Your task to perform on an android device: turn notification dots on Image 0: 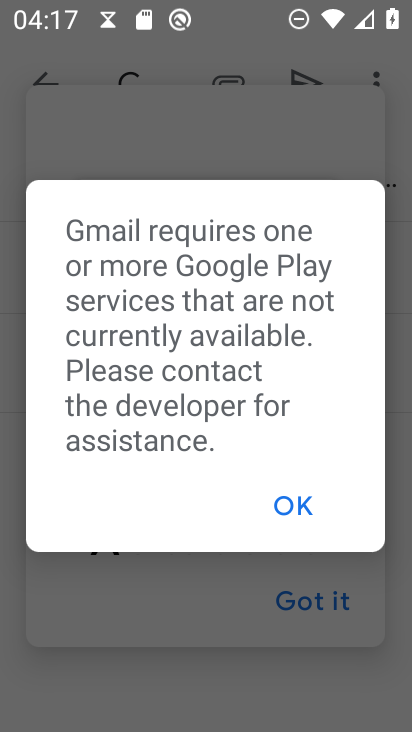
Step 0: press home button
Your task to perform on an android device: turn notification dots on Image 1: 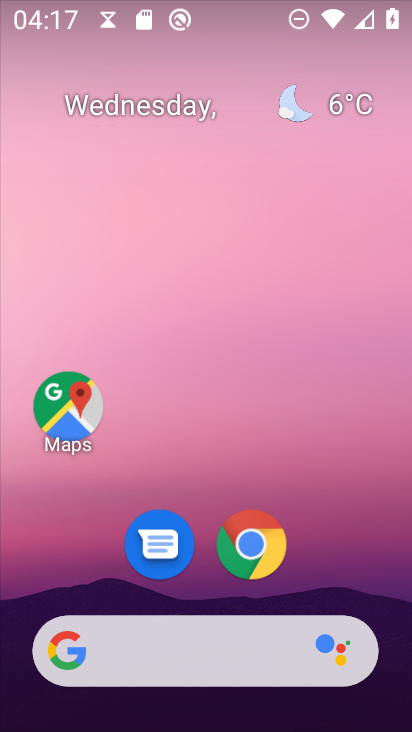
Step 1: drag from (320, 604) to (324, 68)
Your task to perform on an android device: turn notification dots on Image 2: 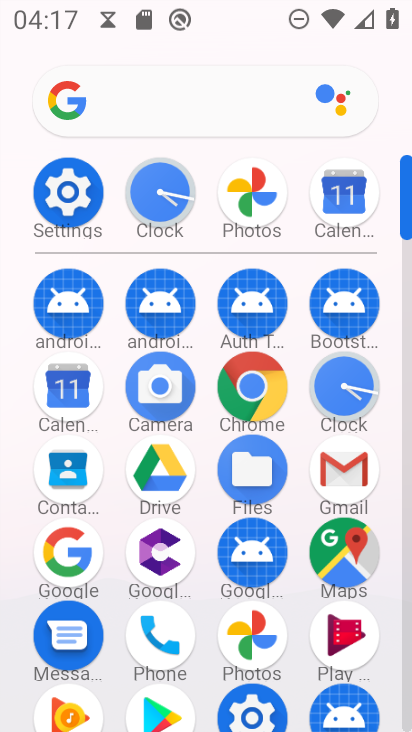
Step 2: click (65, 185)
Your task to perform on an android device: turn notification dots on Image 3: 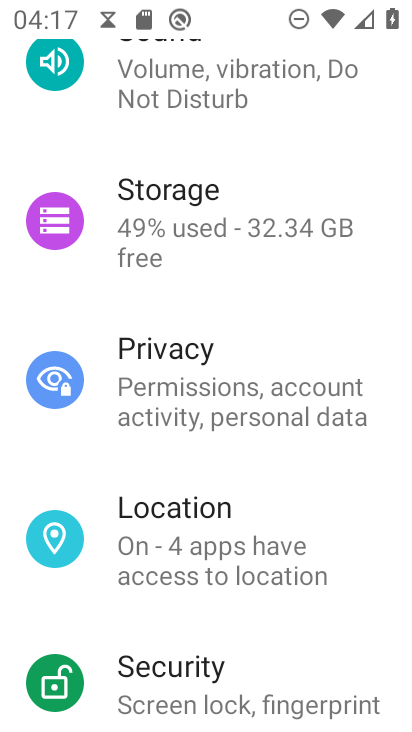
Step 3: drag from (244, 208) to (205, 572)
Your task to perform on an android device: turn notification dots on Image 4: 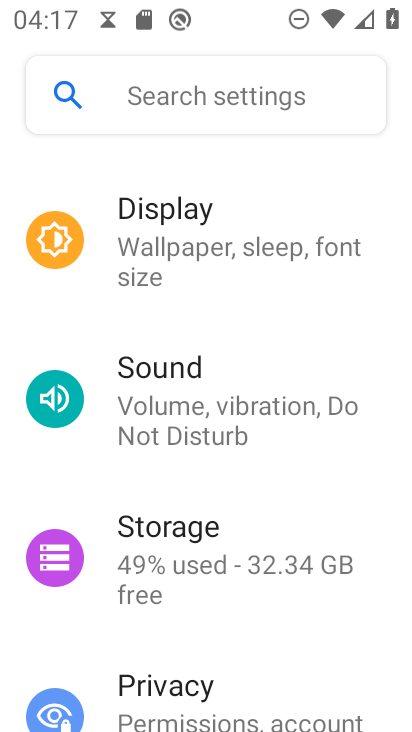
Step 4: drag from (301, 174) to (213, 569)
Your task to perform on an android device: turn notification dots on Image 5: 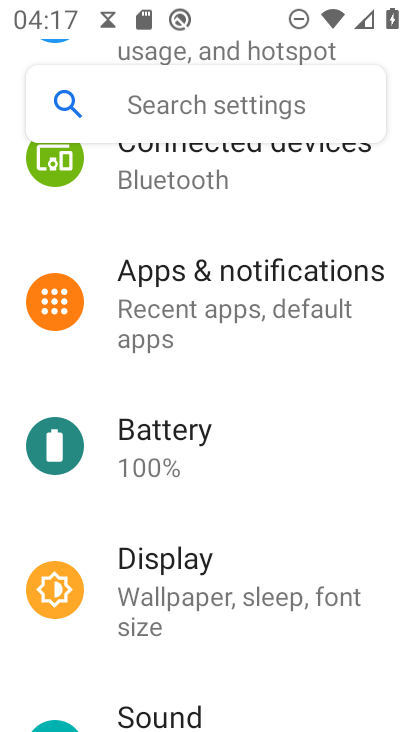
Step 5: click (241, 279)
Your task to perform on an android device: turn notification dots on Image 6: 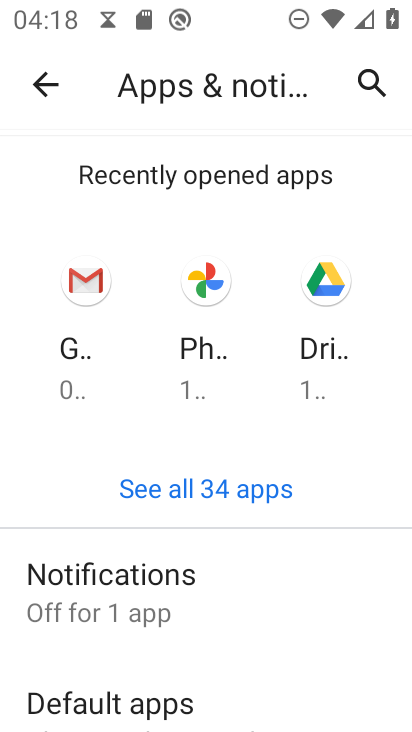
Step 6: click (226, 597)
Your task to perform on an android device: turn notification dots on Image 7: 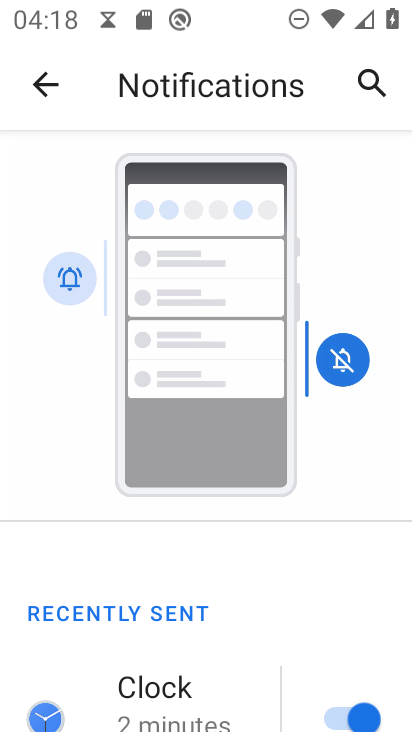
Step 7: drag from (234, 624) to (252, 225)
Your task to perform on an android device: turn notification dots on Image 8: 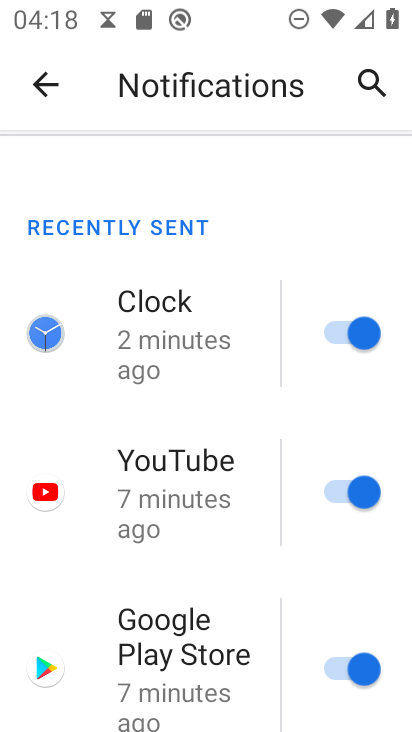
Step 8: drag from (161, 610) to (220, 214)
Your task to perform on an android device: turn notification dots on Image 9: 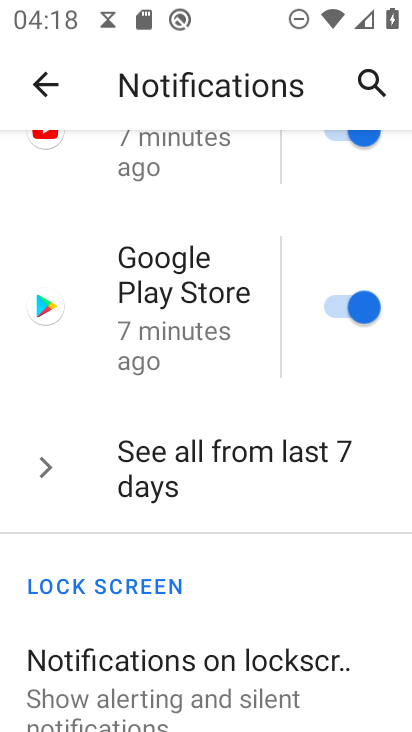
Step 9: drag from (192, 633) to (195, 340)
Your task to perform on an android device: turn notification dots on Image 10: 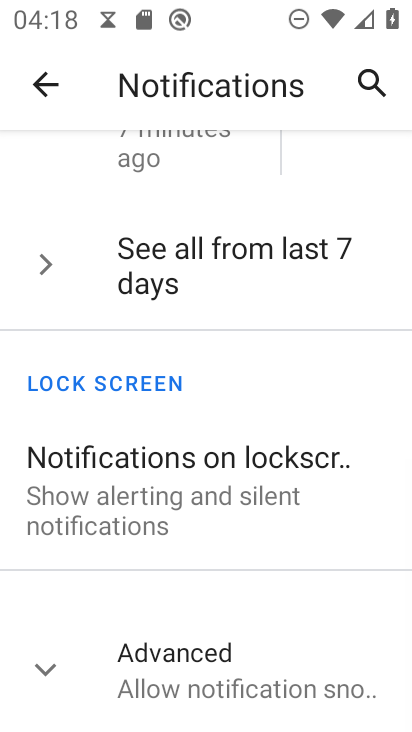
Step 10: click (208, 657)
Your task to perform on an android device: turn notification dots on Image 11: 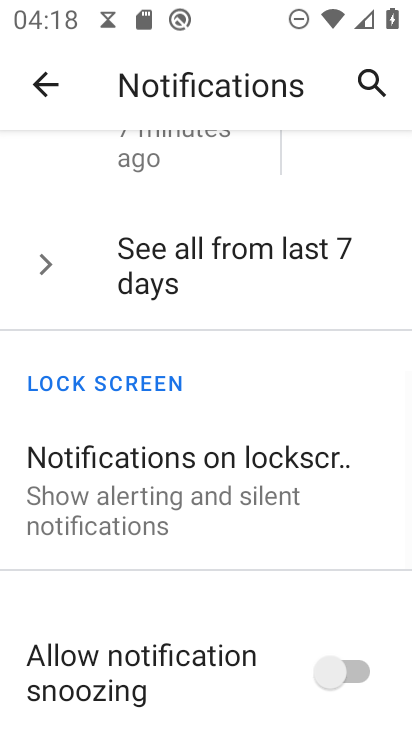
Step 11: drag from (264, 656) to (287, 292)
Your task to perform on an android device: turn notification dots on Image 12: 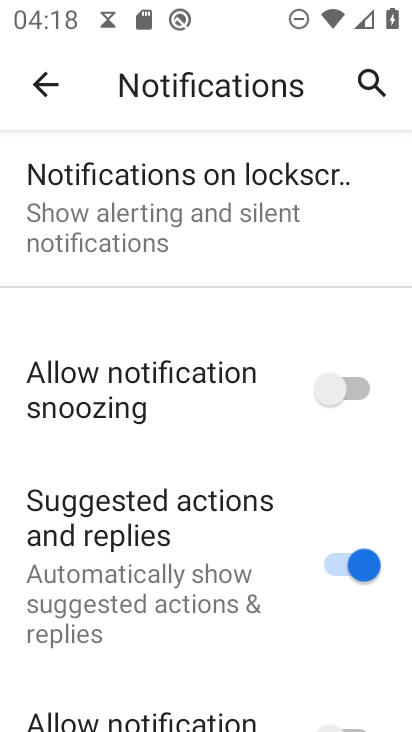
Step 12: drag from (269, 659) to (325, 257)
Your task to perform on an android device: turn notification dots on Image 13: 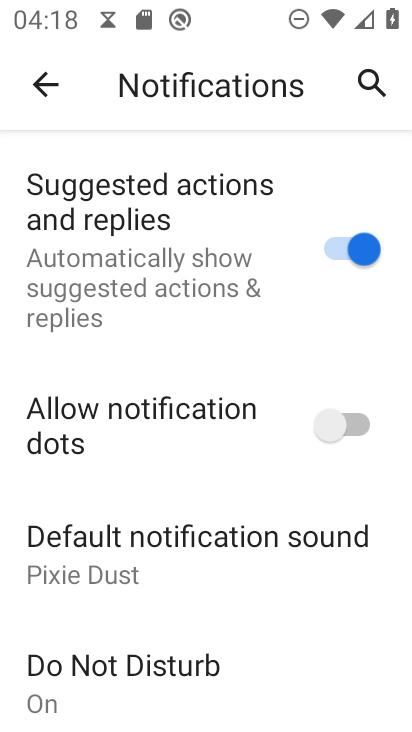
Step 13: click (334, 426)
Your task to perform on an android device: turn notification dots on Image 14: 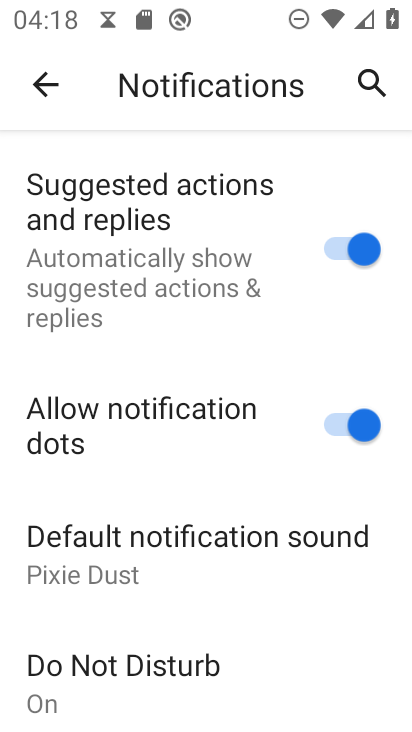
Step 14: task complete